Your task to perform on an android device: star an email in the gmail app Image 0: 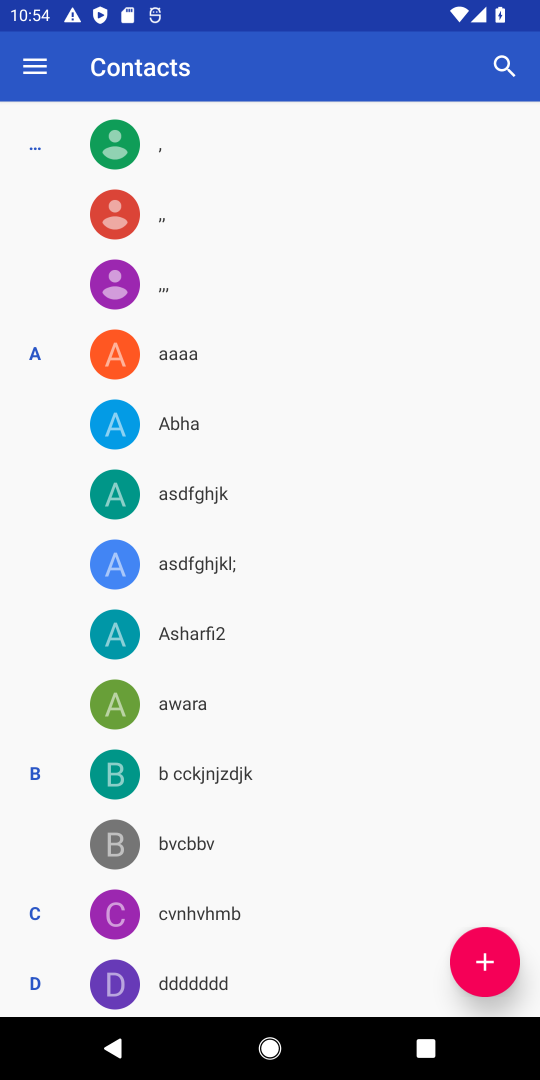
Step 0: press home button
Your task to perform on an android device: star an email in the gmail app Image 1: 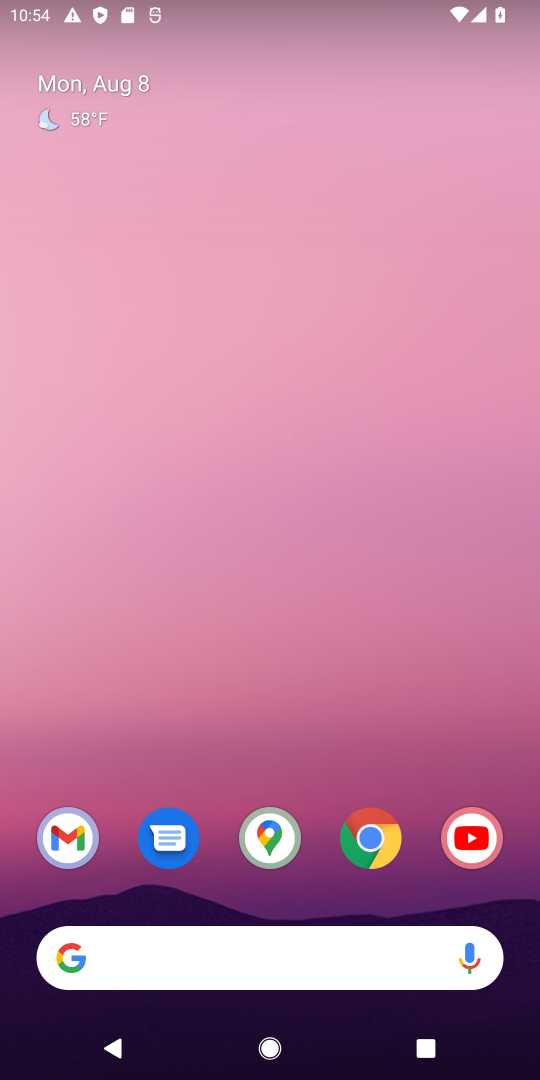
Step 1: click (73, 827)
Your task to perform on an android device: star an email in the gmail app Image 2: 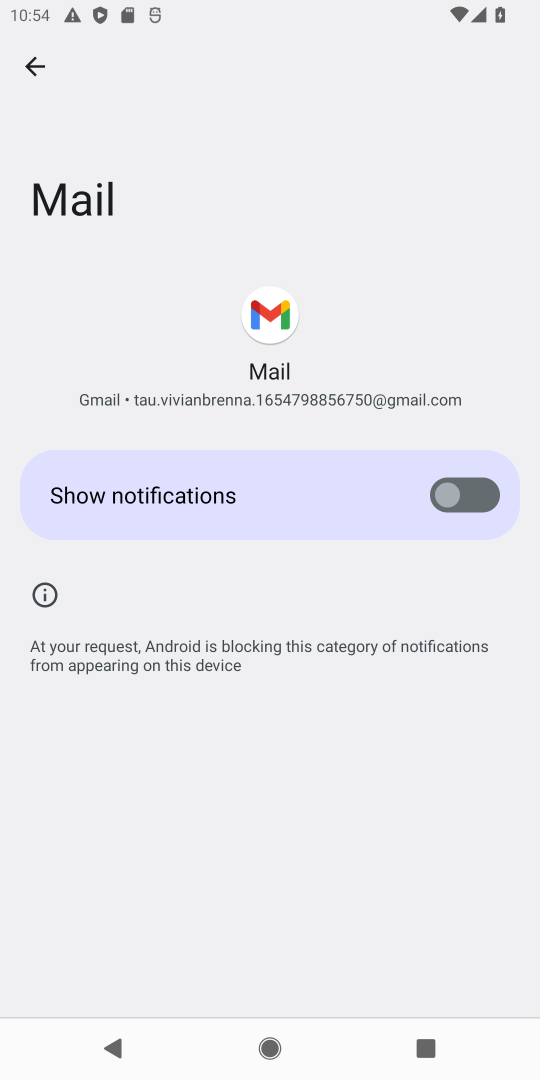
Step 2: click (41, 65)
Your task to perform on an android device: star an email in the gmail app Image 3: 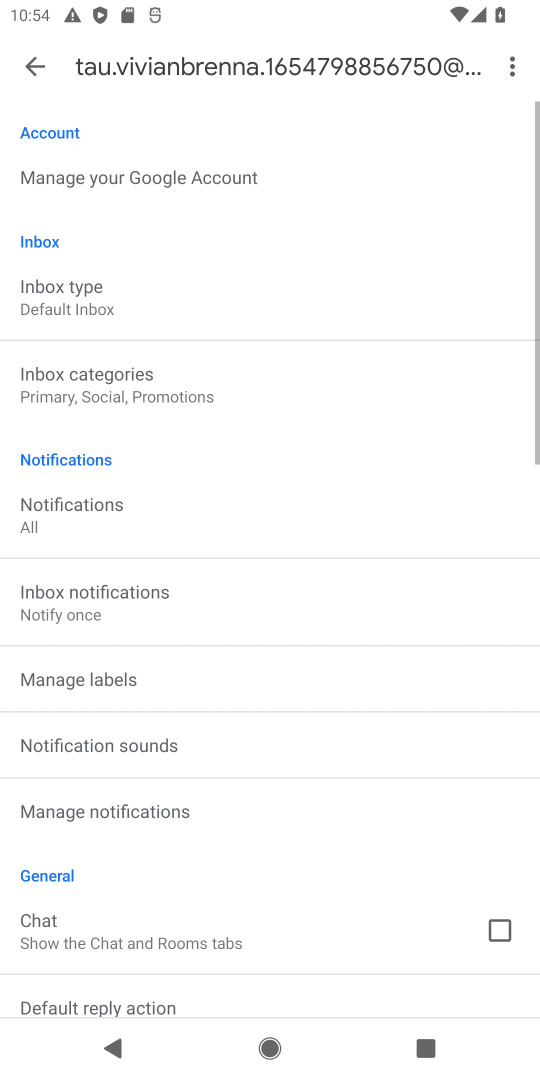
Step 3: click (41, 65)
Your task to perform on an android device: star an email in the gmail app Image 4: 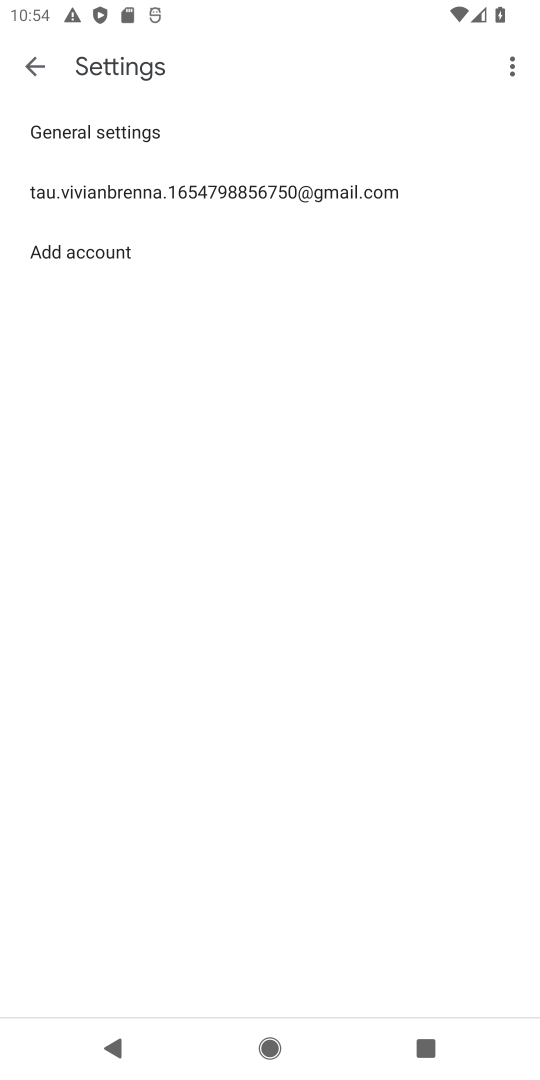
Step 4: click (42, 69)
Your task to perform on an android device: star an email in the gmail app Image 5: 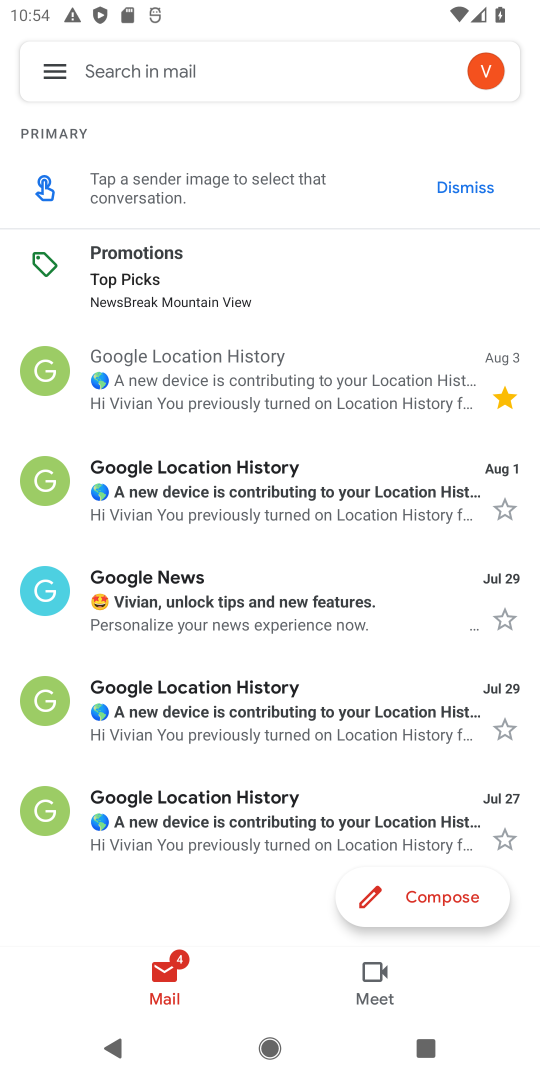
Step 5: click (299, 501)
Your task to perform on an android device: star an email in the gmail app Image 6: 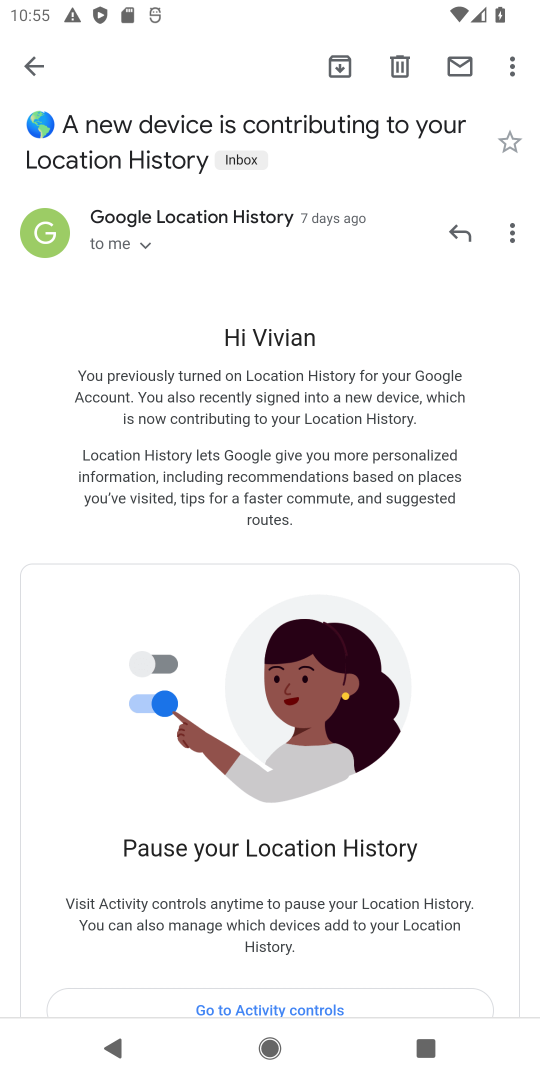
Step 6: click (514, 141)
Your task to perform on an android device: star an email in the gmail app Image 7: 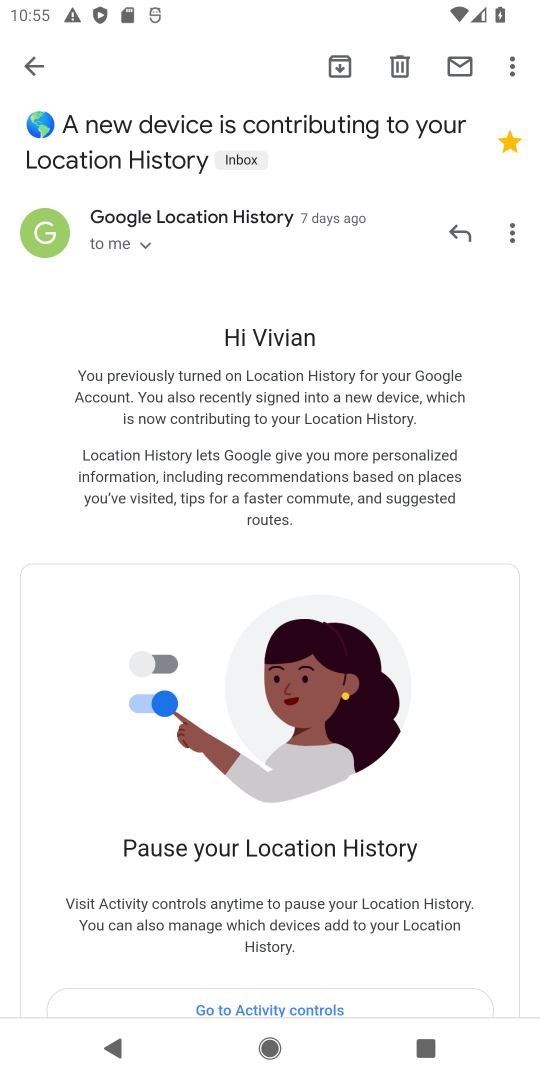
Step 7: task complete